Your task to perform on an android device: turn off location Image 0: 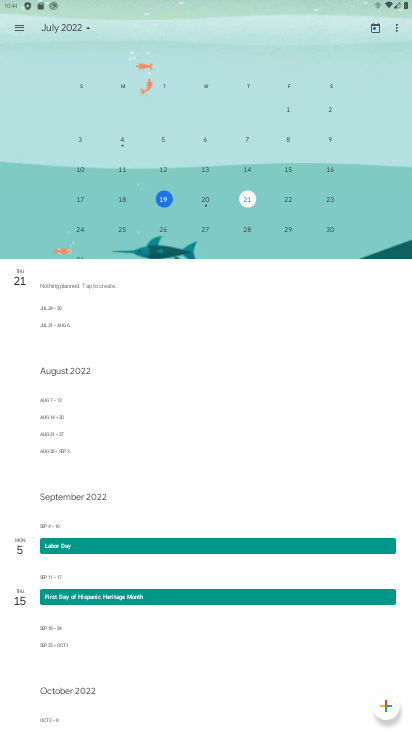
Step 0: press home button
Your task to perform on an android device: turn off location Image 1: 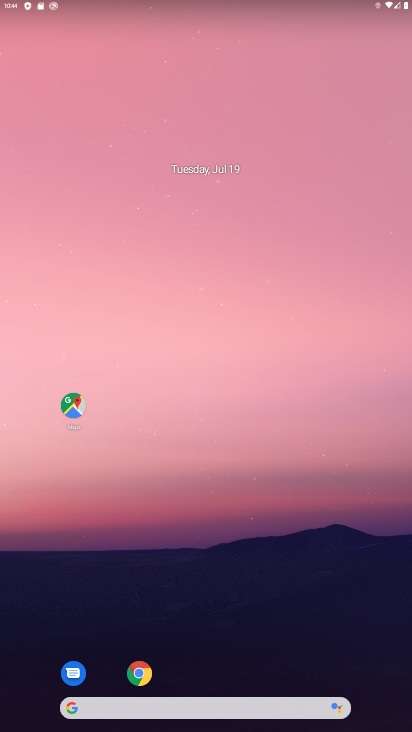
Step 1: drag from (216, 603) to (235, 105)
Your task to perform on an android device: turn off location Image 2: 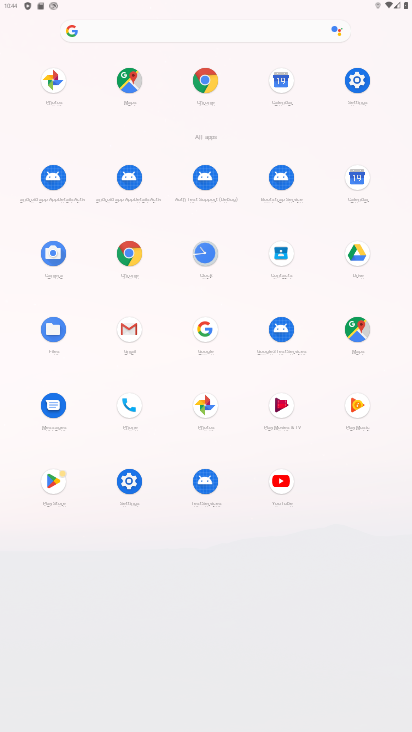
Step 2: click (356, 78)
Your task to perform on an android device: turn off location Image 3: 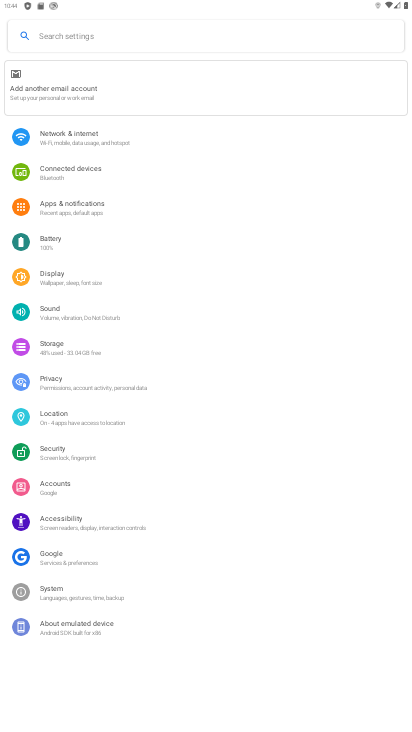
Step 3: click (83, 418)
Your task to perform on an android device: turn off location Image 4: 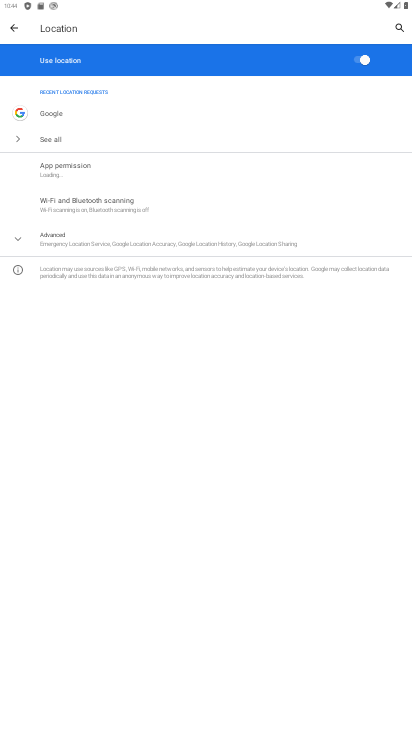
Step 4: click (359, 60)
Your task to perform on an android device: turn off location Image 5: 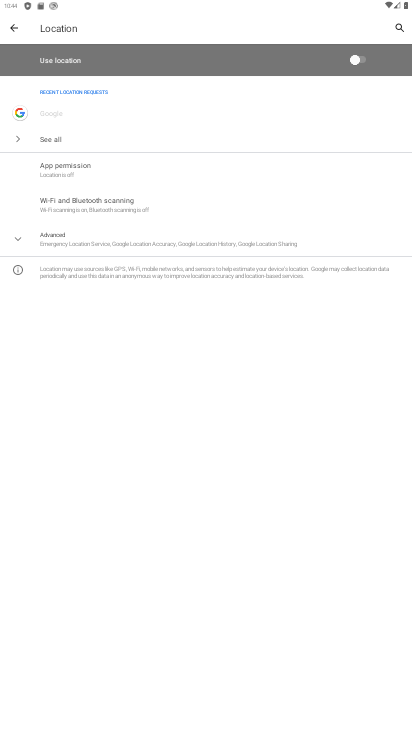
Step 5: task complete